Your task to perform on an android device: create a new album in the google photos Image 0: 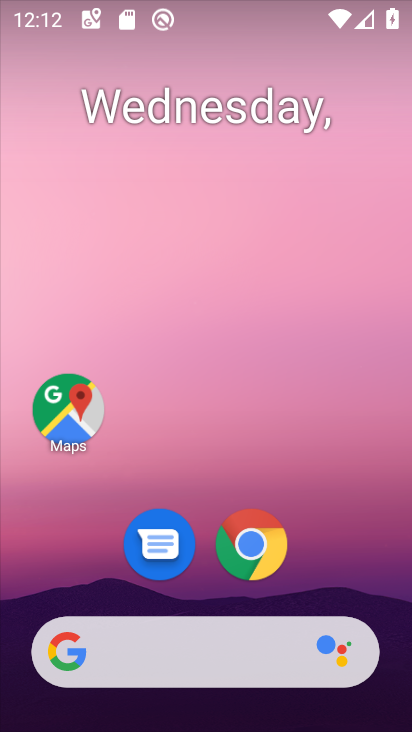
Step 0: drag from (255, 458) to (279, 94)
Your task to perform on an android device: create a new album in the google photos Image 1: 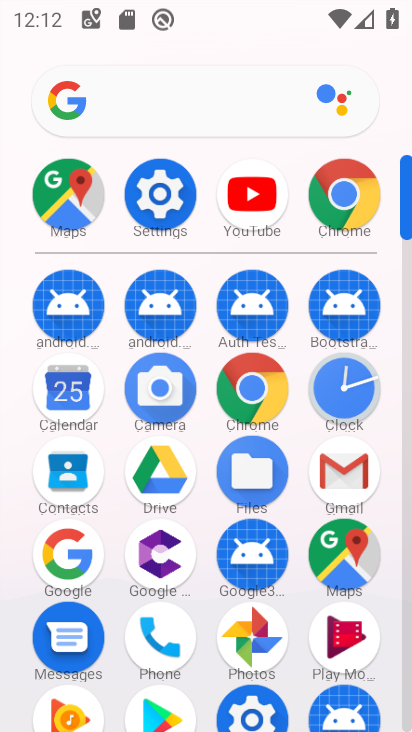
Step 1: drag from (215, 157) to (231, 57)
Your task to perform on an android device: create a new album in the google photos Image 2: 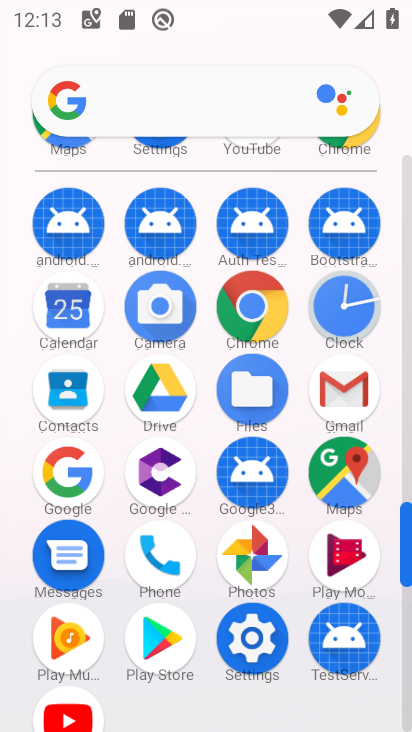
Step 2: drag from (203, 167) to (213, 227)
Your task to perform on an android device: create a new album in the google photos Image 3: 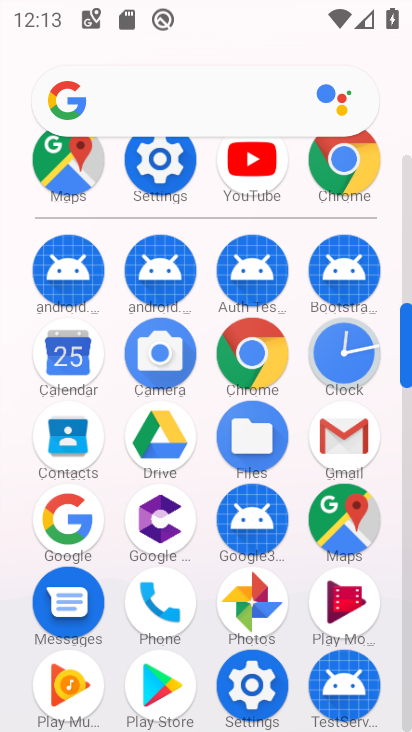
Step 3: click (253, 609)
Your task to perform on an android device: create a new album in the google photos Image 4: 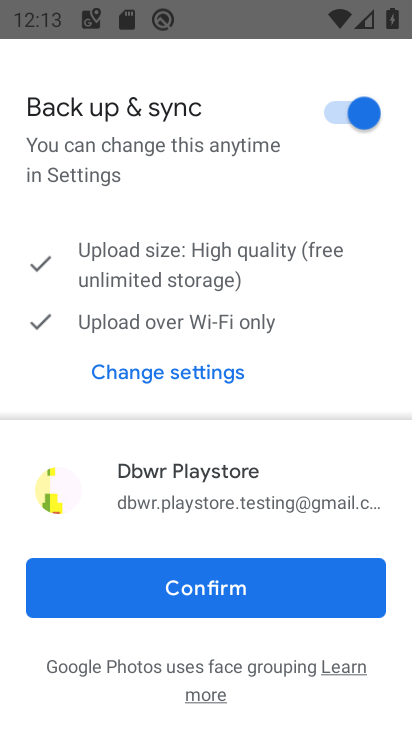
Step 4: click (258, 602)
Your task to perform on an android device: create a new album in the google photos Image 5: 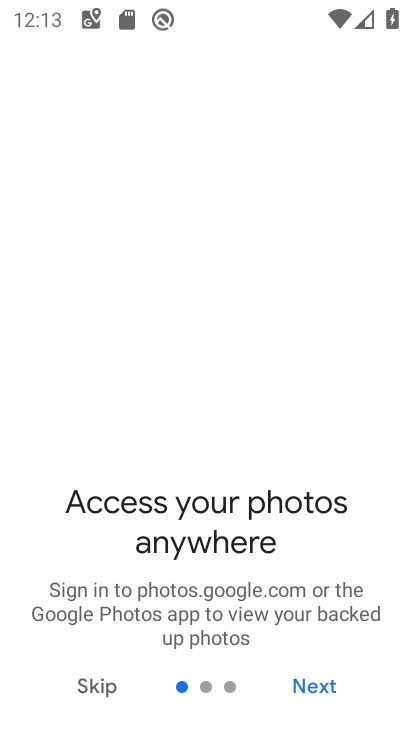
Step 5: click (314, 685)
Your task to perform on an android device: create a new album in the google photos Image 6: 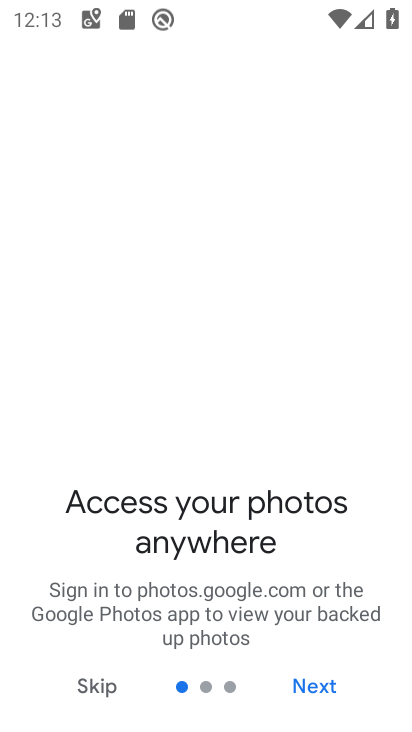
Step 6: click (314, 685)
Your task to perform on an android device: create a new album in the google photos Image 7: 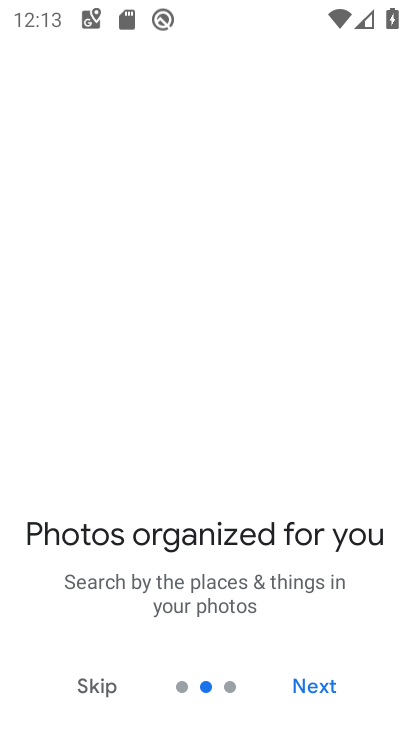
Step 7: click (314, 685)
Your task to perform on an android device: create a new album in the google photos Image 8: 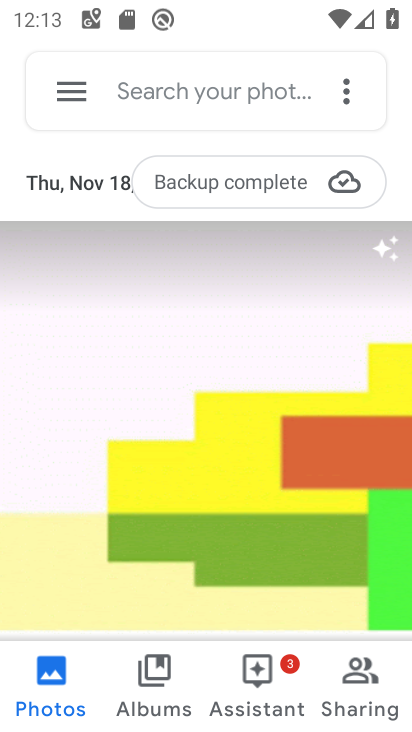
Step 8: click (175, 677)
Your task to perform on an android device: create a new album in the google photos Image 9: 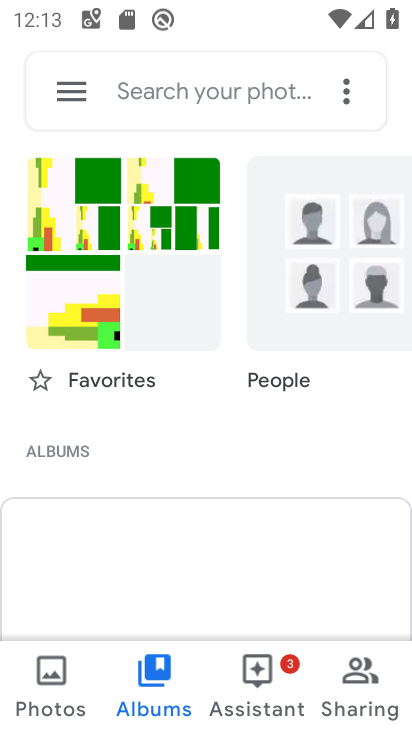
Step 9: drag from (105, 508) to (192, 238)
Your task to perform on an android device: create a new album in the google photos Image 10: 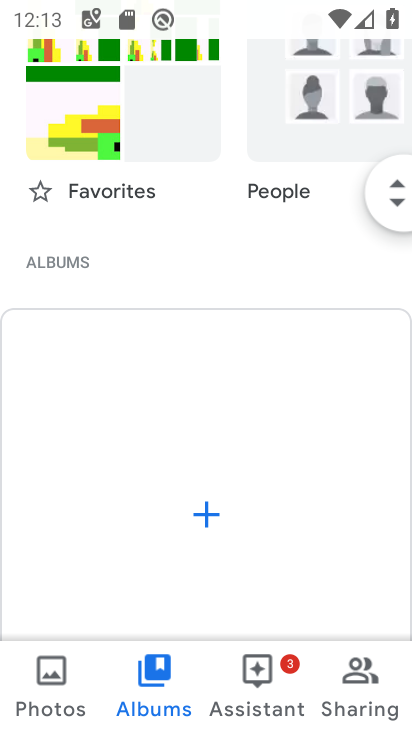
Step 10: click (204, 524)
Your task to perform on an android device: create a new album in the google photos Image 11: 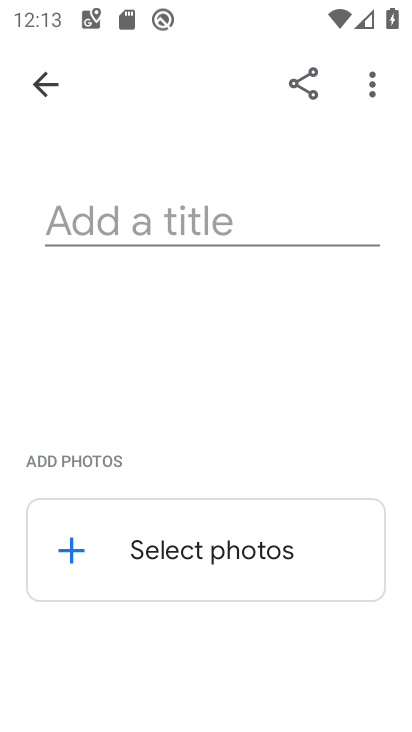
Step 11: click (195, 220)
Your task to perform on an android device: create a new album in the google photos Image 12: 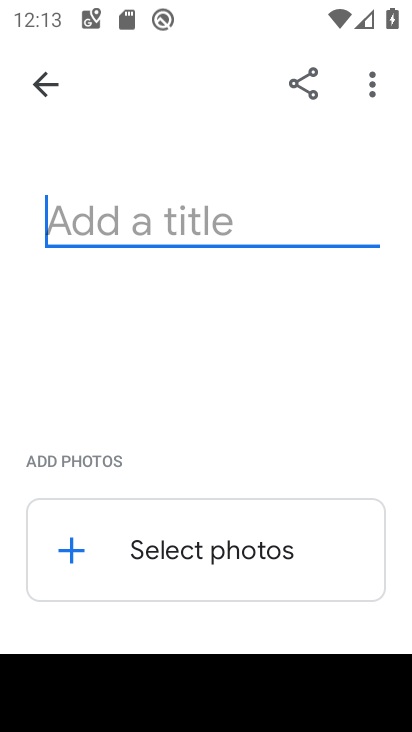
Step 12: click (195, 220)
Your task to perform on an android device: create a new album in the google photos Image 13: 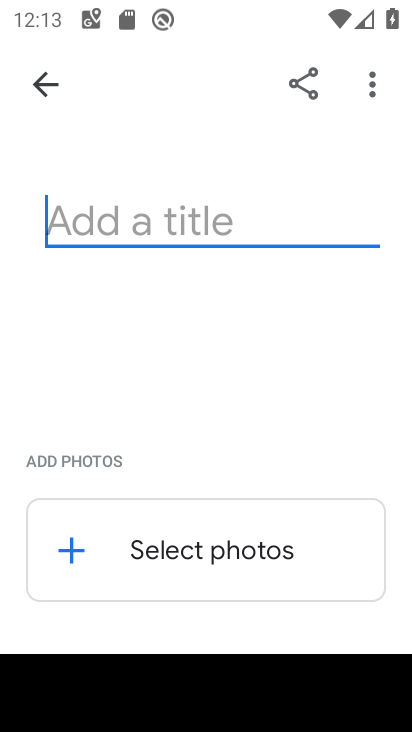
Step 13: type "gfxfgchfv"
Your task to perform on an android device: create a new album in the google photos Image 14: 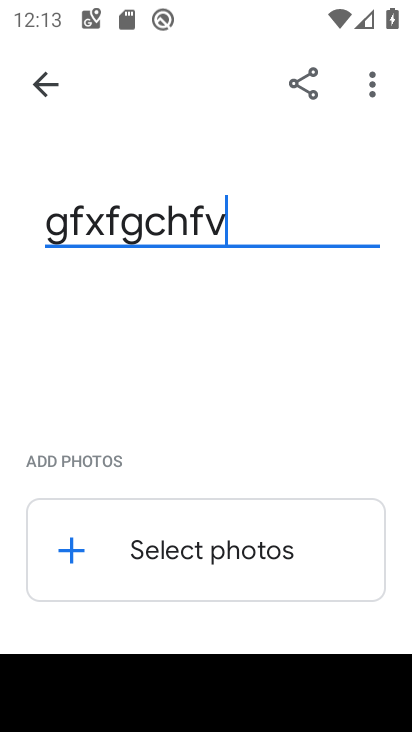
Step 14: type ""
Your task to perform on an android device: create a new album in the google photos Image 15: 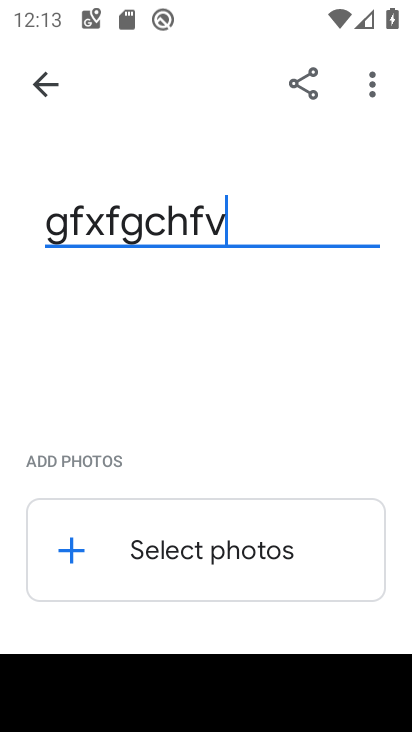
Step 15: click (257, 562)
Your task to perform on an android device: create a new album in the google photos Image 16: 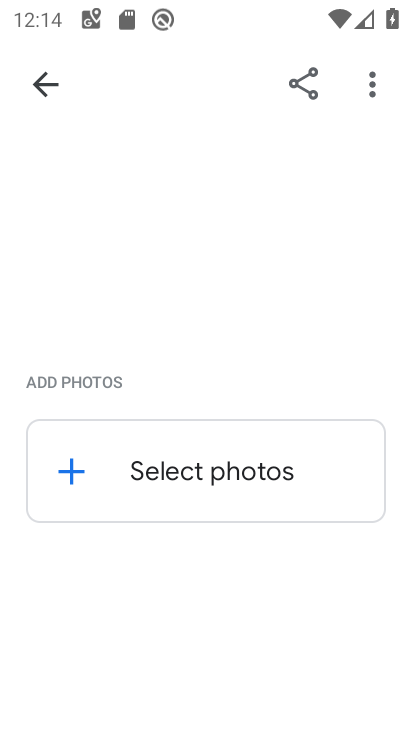
Step 16: click (239, 477)
Your task to perform on an android device: create a new album in the google photos Image 17: 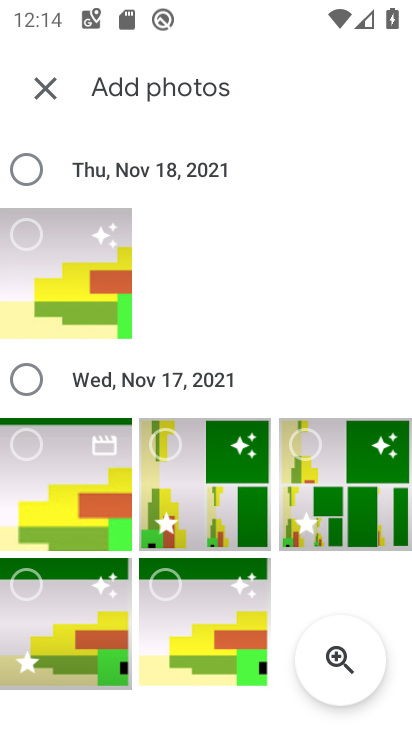
Step 17: click (172, 474)
Your task to perform on an android device: create a new album in the google photos Image 18: 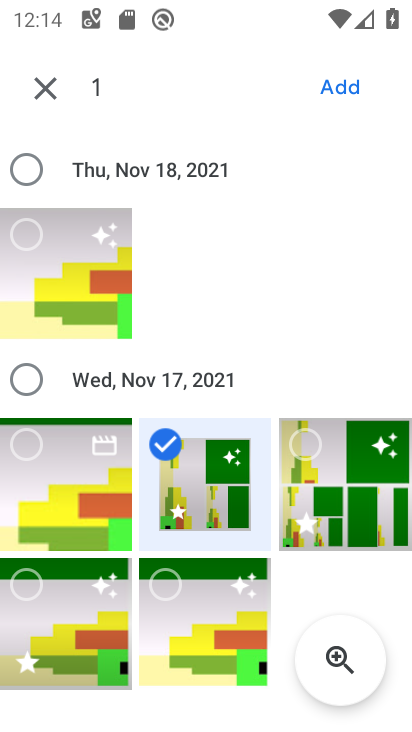
Step 18: click (290, 454)
Your task to perform on an android device: create a new album in the google photos Image 19: 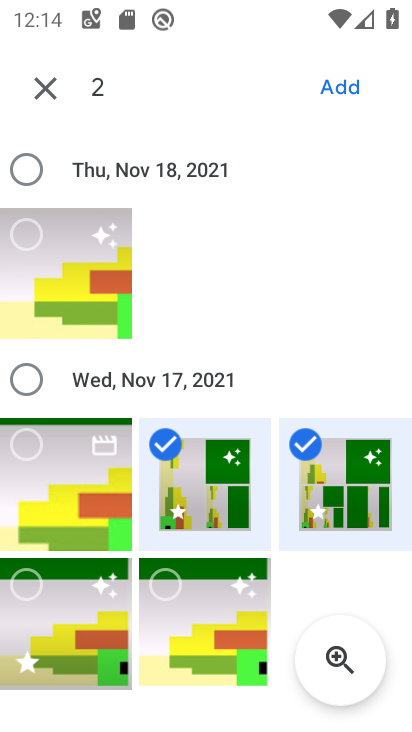
Step 19: click (357, 89)
Your task to perform on an android device: create a new album in the google photos Image 20: 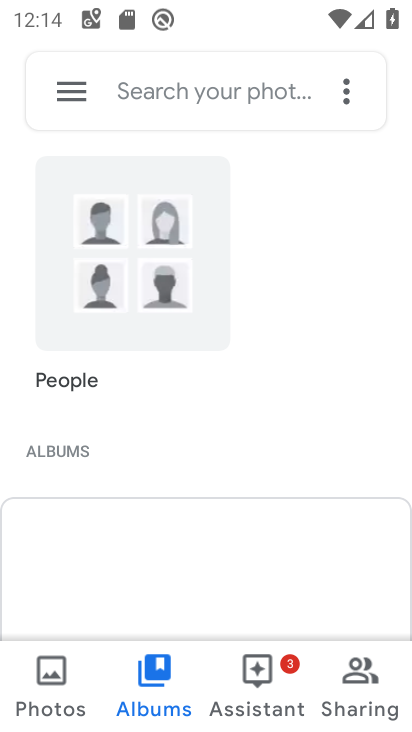
Step 20: task complete